Your task to perform on an android device: Open Android settings Image 0: 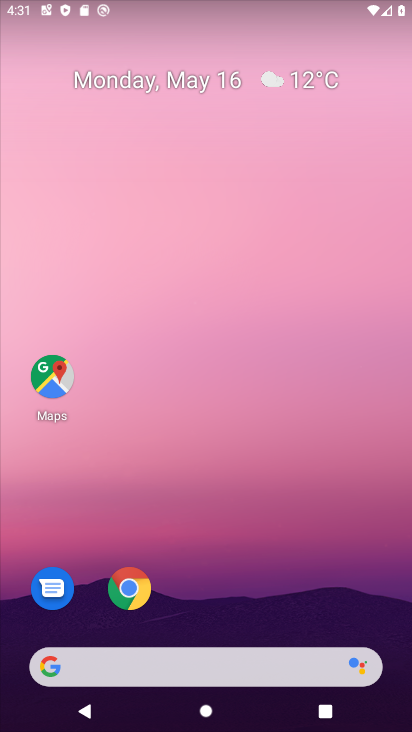
Step 0: click (285, 107)
Your task to perform on an android device: Open Android settings Image 1: 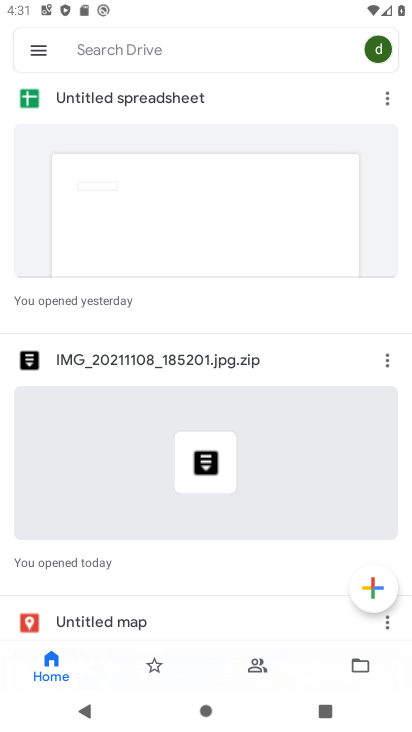
Step 1: press back button
Your task to perform on an android device: Open Android settings Image 2: 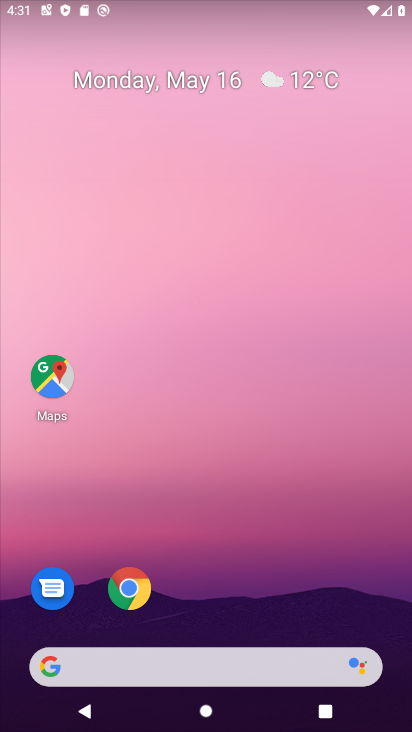
Step 2: drag from (202, 614) to (279, 116)
Your task to perform on an android device: Open Android settings Image 3: 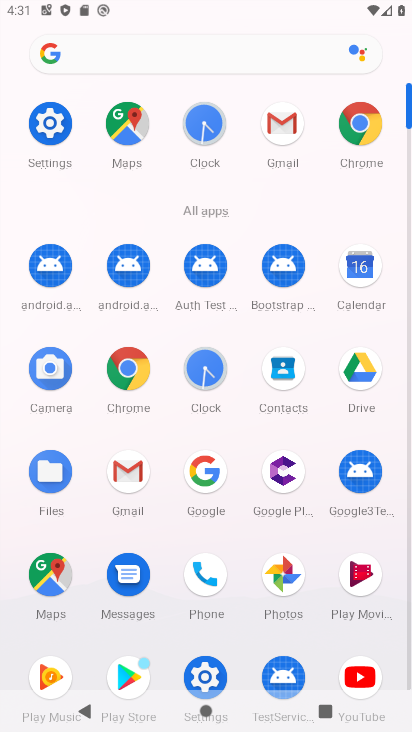
Step 3: click (52, 121)
Your task to perform on an android device: Open Android settings Image 4: 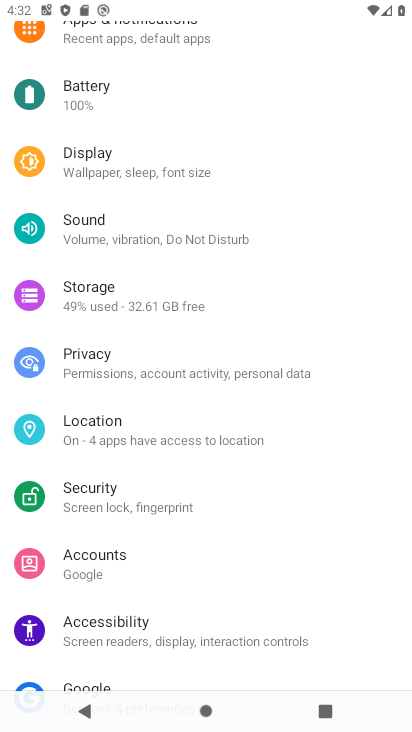
Step 4: drag from (155, 107) to (118, 638)
Your task to perform on an android device: Open Android settings Image 5: 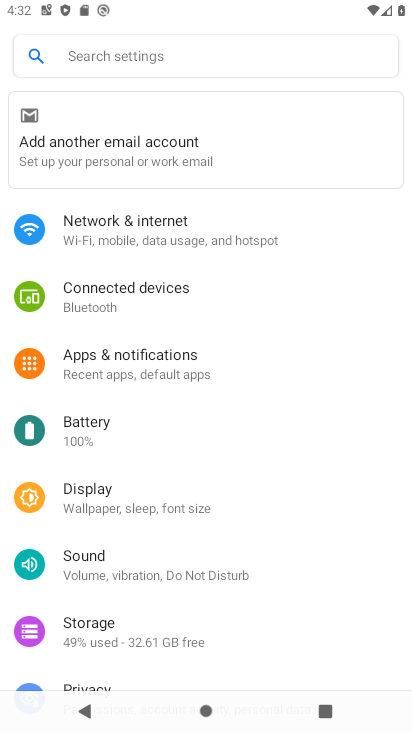
Step 5: drag from (153, 625) to (252, 98)
Your task to perform on an android device: Open Android settings Image 6: 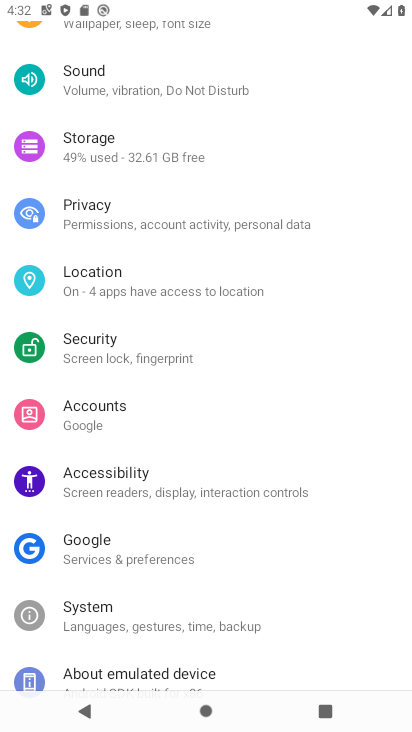
Step 6: drag from (119, 659) to (229, 68)
Your task to perform on an android device: Open Android settings Image 7: 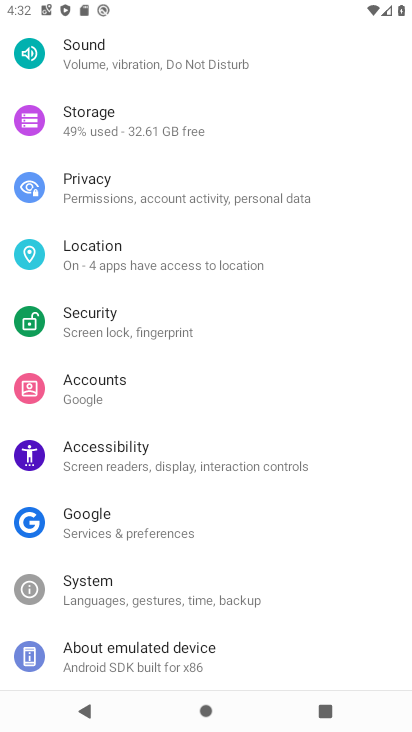
Step 7: click (158, 659)
Your task to perform on an android device: Open Android settings Image 8: 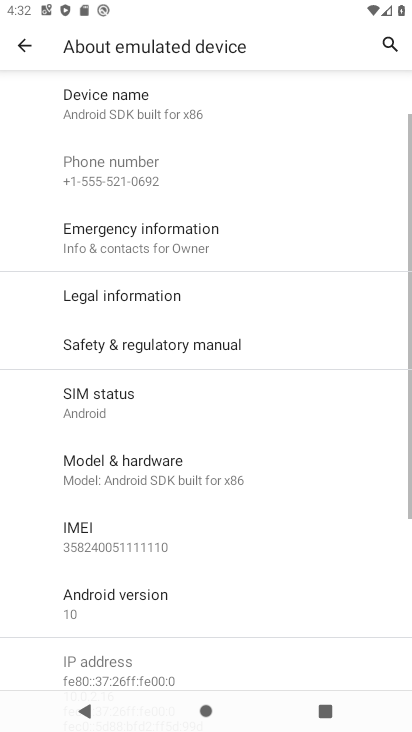
Step 8: click (129, 603)
Your task to perform on an android device: Open Android settings Image 9: 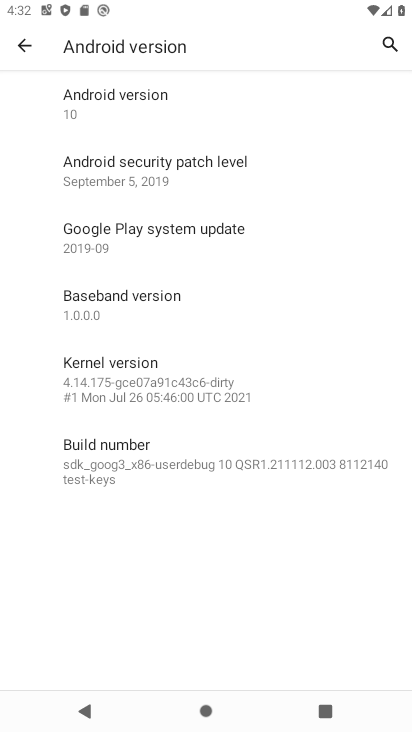
Step 9: task complete